Your task to perform on an android device: empty trash in google photos Image 0: 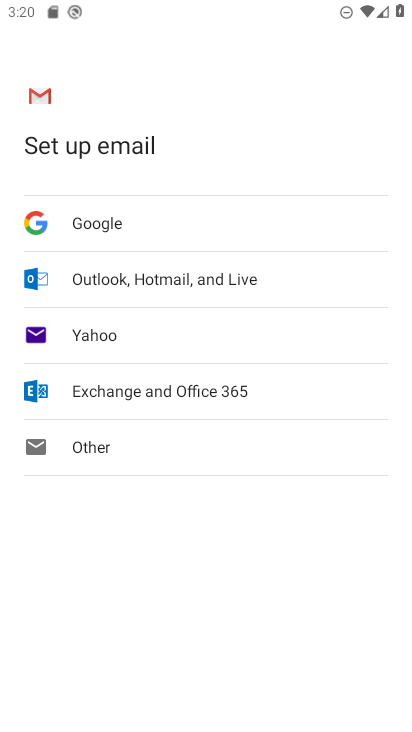
Step 0: press home button
Your task to perform on an android device: empty trash in google photos Image 1: 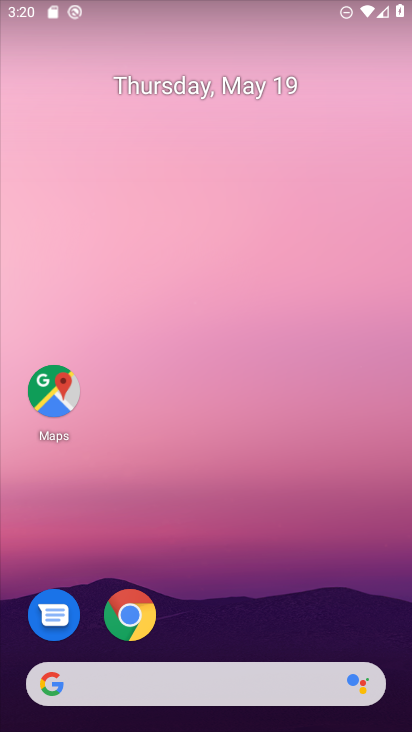
Step 1: drag from (266, 615) to (134, 33)
Your task to perform on an android device: empty trash in google photos Image 2: 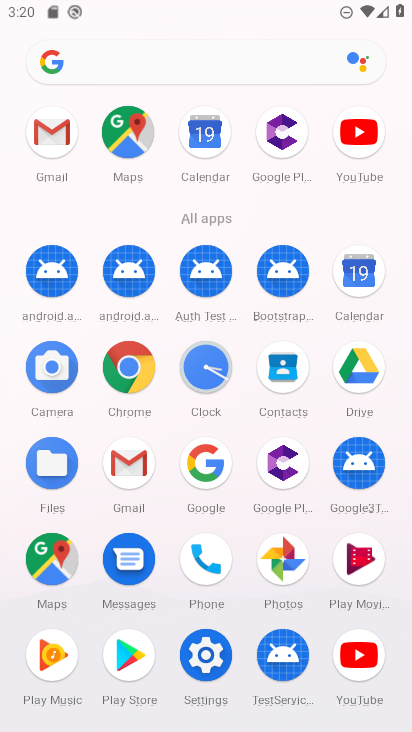
Step 2: click (55, 114)
Your task to perform on an android device: empty trash in google photos Image 3: 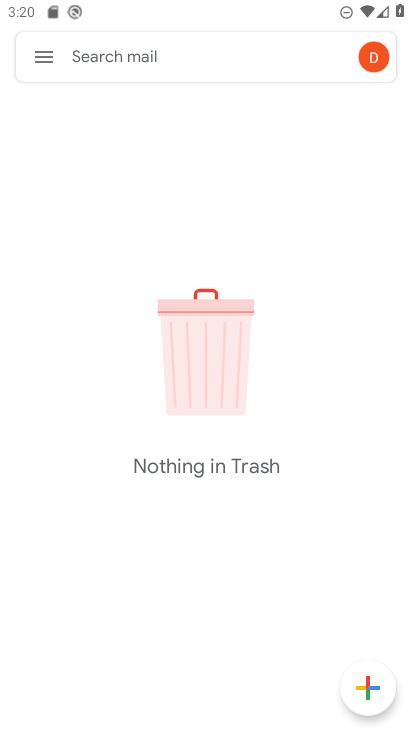
Step 3: task complete